Your task to perform on an android device: Open Chrome and go to settings Image 0: 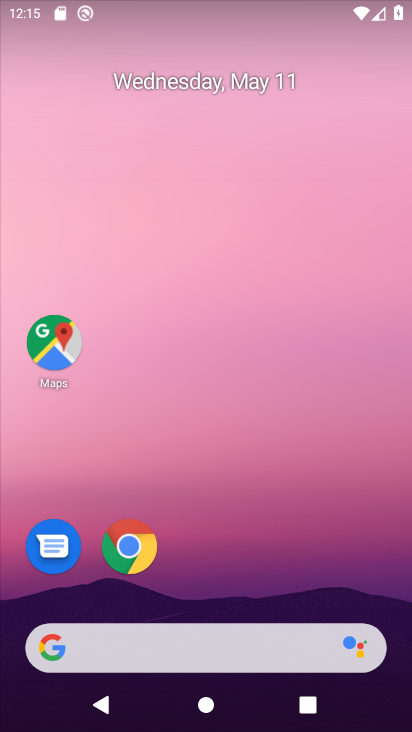
Step 0: drag from (344, 572) to (303, 240)
Your task to perform on an android device: Open Chrome and go to settings Image 1: 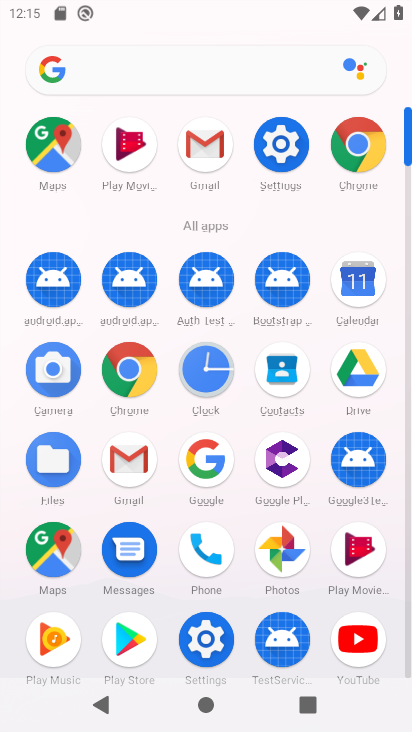
Step 1: click (349, 137)
Your task to perform on an android device: Open Chrome and go to settings Image 2: 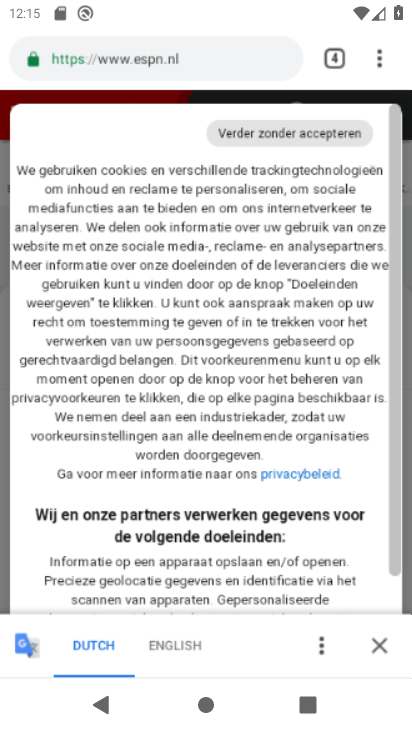
Step 2: click (366, 58)
Your task to perform on an android device: Open Chrome and go to settings Image 3: 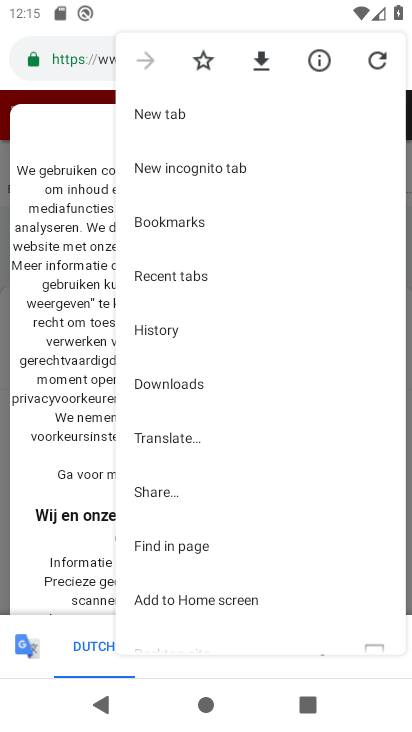
Step 3: drag from (204, 584) to (252, 216)
Your task to perform on an android device: Open Chrome and go to settings Image 4: 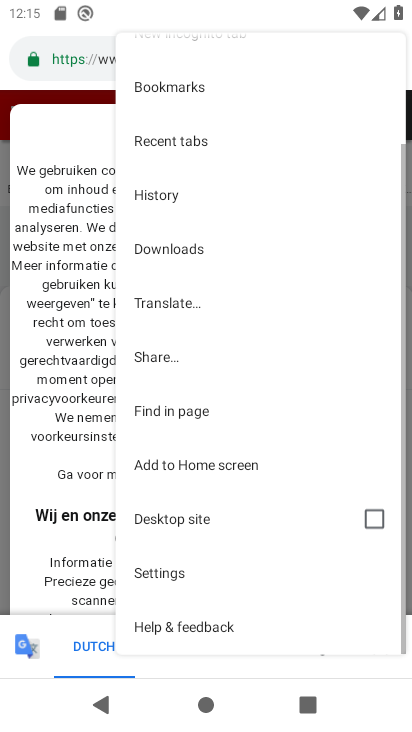
Step 4: click (168, 570)
Your task to perform on an android device: Open Chrome and go to settings Image 5: 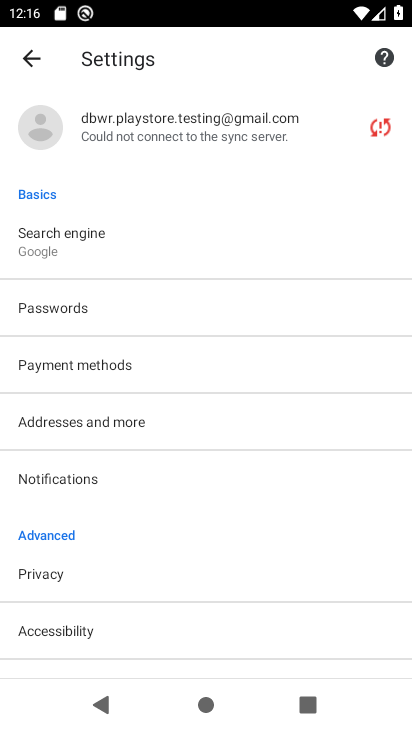
Step 5: task complete